Your task to perform on an android device: Go to battery settings Image 0: 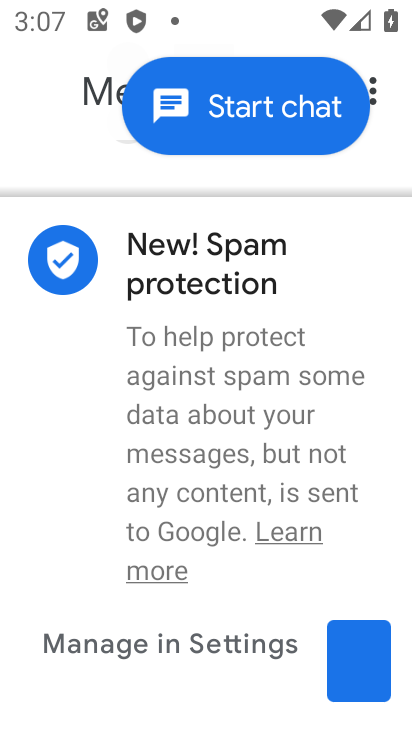
Step 0: press back button
Your task to perform on an android device: Go to battery settings Image 1: 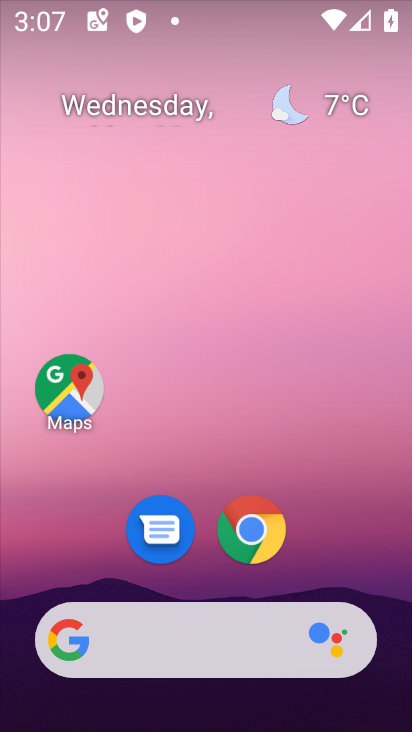
Step 1: drag from (34, 616) to (315, 73)
Your task to perform on an android device: Go to battery settings Image 2: 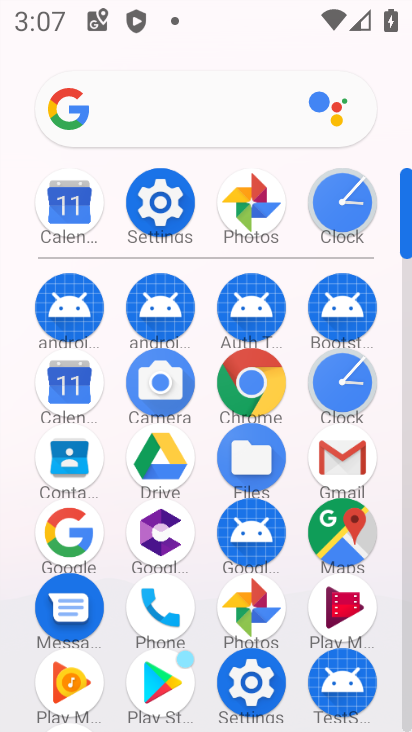
Step 2: click (149, 220)
Your task to perform on an android device: Go to battery settings Image 3: 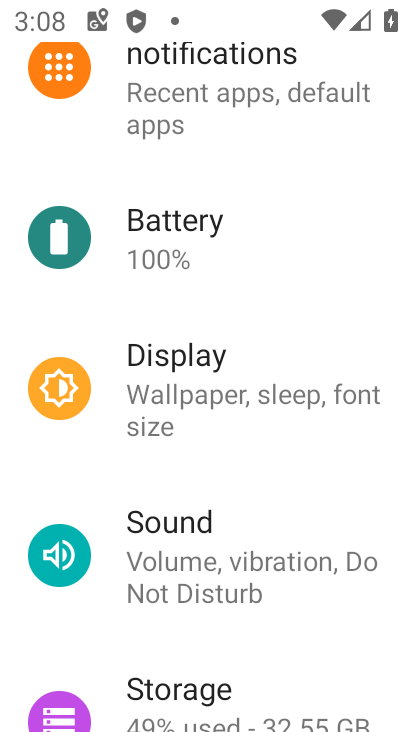
Step 3: click (224, 218)
Your task to perform on an android device: Go to battery settings Image 4: 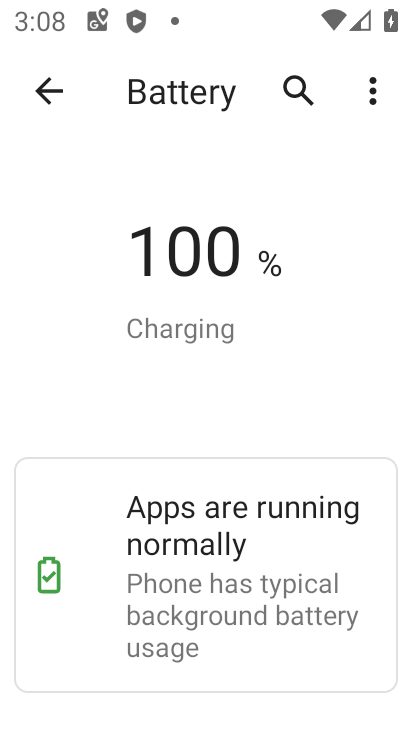
Step 4: task complete